Your task to perform on an android device: manage bookmarks in the chrome app Image 0: 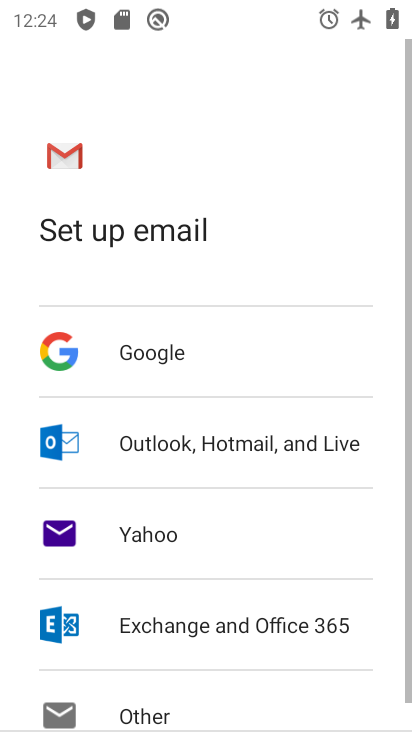
Step 0: press home button
Your task to perform on an android device: manage bookmarks in the chrome app Image 1: 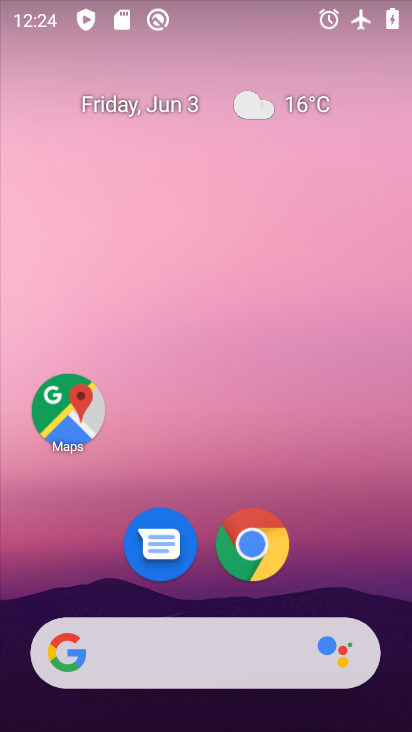
Step 1: drag from (344, 557) to (329, 166)
Your task to perform on an android device: manage bookmarks in the chrome app Image 2: 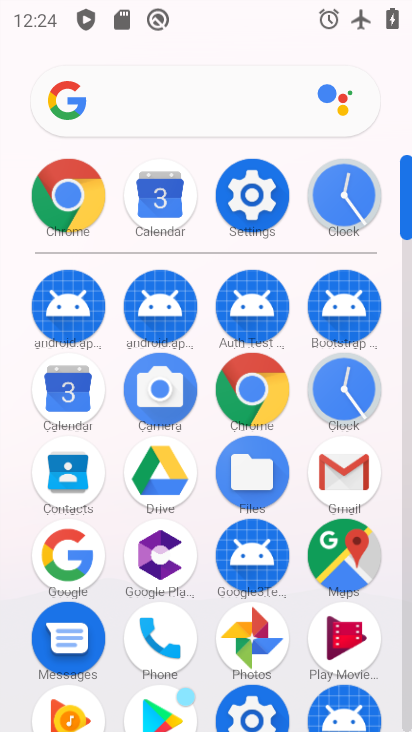
Step 2: click (254, 356)
Your task to perform on an android device: manage bookmarks in the chrome app Image 3: 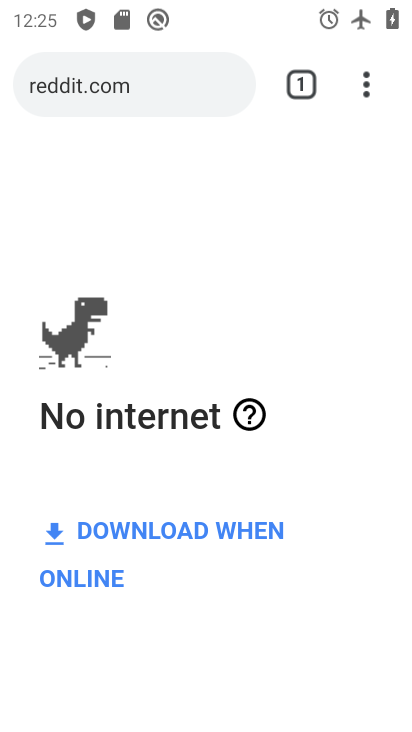
Step 3: task complete